Your task to perform on an android device: visit the assistant section in the google photos Image 0: 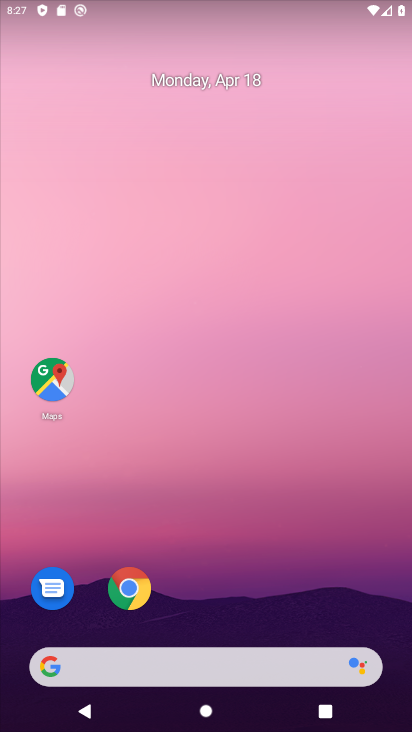
Step 0: drag from (209, 596) to (215, 65)
Your task to perform on an android device: visit the assistant section in the google photos Image 1: 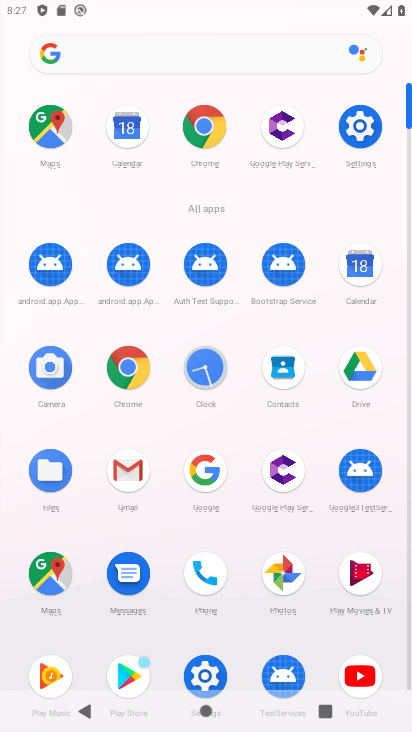
Step 1: click (290, 579)
Your task to perform on an android device: visit the assistant section in the google photos Image 2: 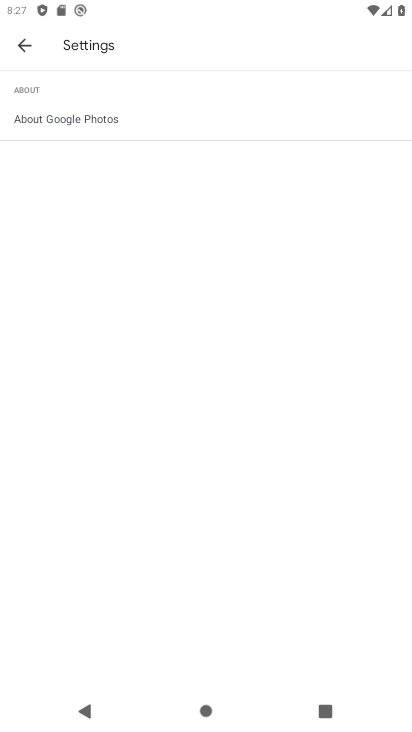
Step 2: click (23, 41)
Your task to perform on an android device: visit the assistant section in the google photos Image 3: 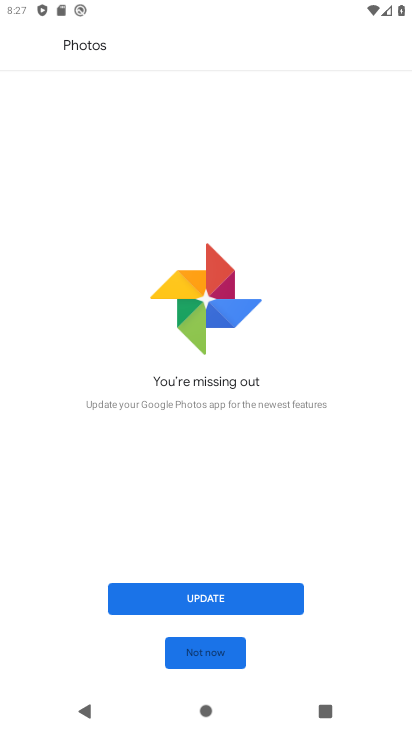
Step 3: click (211, 649)
Your task to perform on an android device: visit the assistant section in the google photos Image 4: 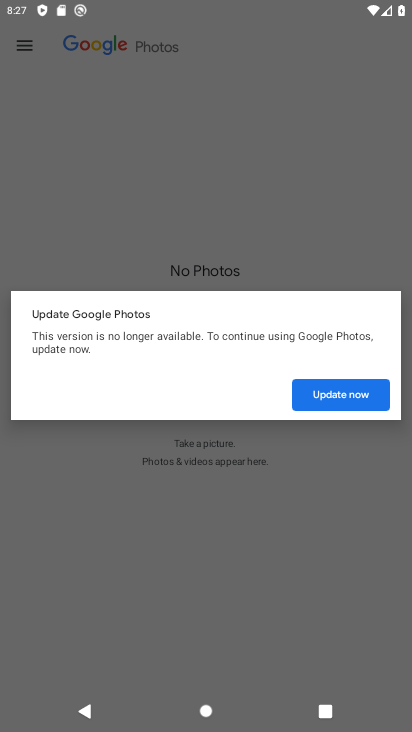
Step 4: click (352, 390)
Your task to perform on an android device: visit the assistant section in the google photos Image 5: 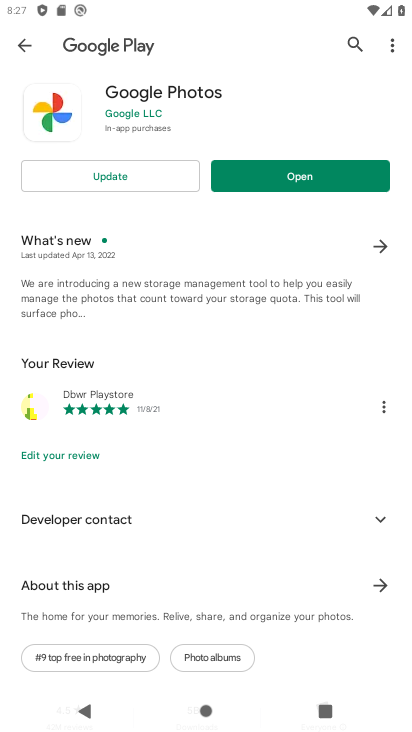
Step 5: click (124, 174)
Your task to perform on an android device: visit the assistant section in the google photos Image 6: 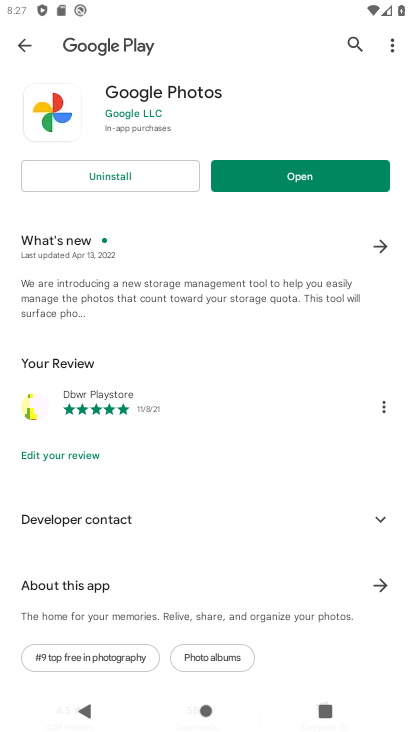
Step 6: click (294, 172)
Your task to perform on an android device: visit the assistant section in the google photos Image 7: 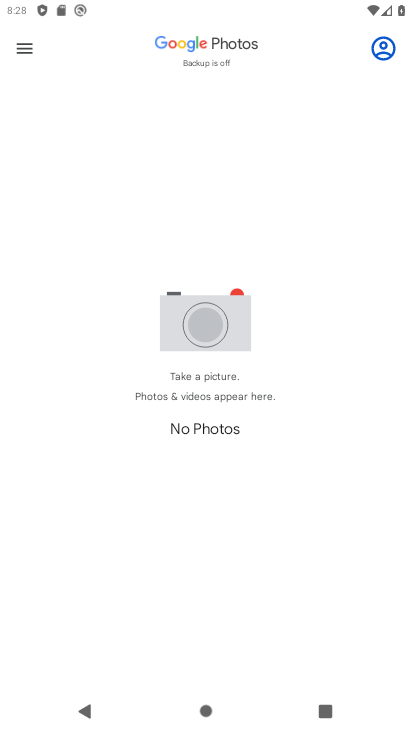
Step 7: drag from (175, 592) to (186, 184)
Your task to perform on an android device: visit the assistant section in the google photos Image 8: 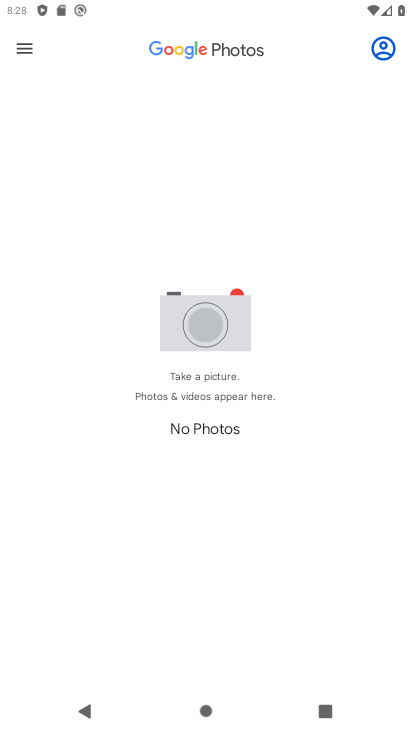
Step 8: click (18, 49)
Your task to perform on an android device: visit the assistant section in the google photos Image 9: 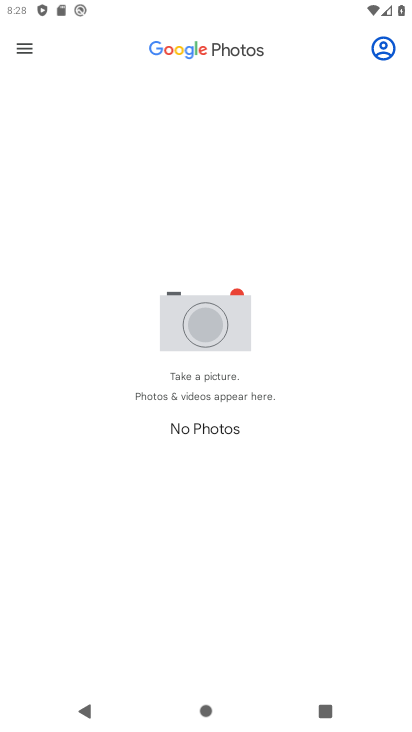
Step 9: click (26, 54)
Your task to perform on an android device: visit the assistant section in the google photos Image 10: 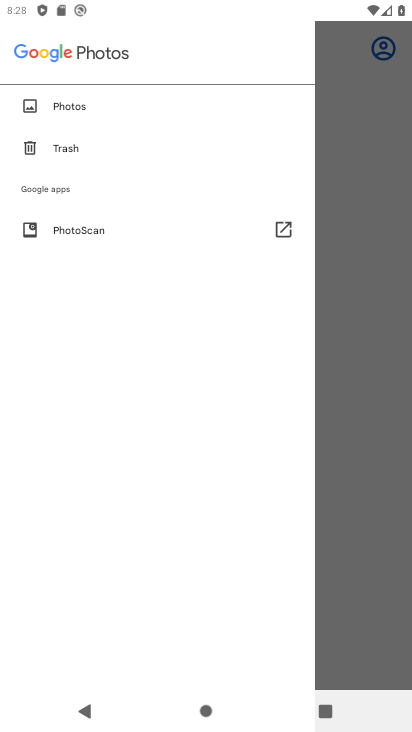
Step 10: drag from (158, 153) to (166, 400)
Your task to perform on an android device: visit the assistant section in the google photos Image 11: 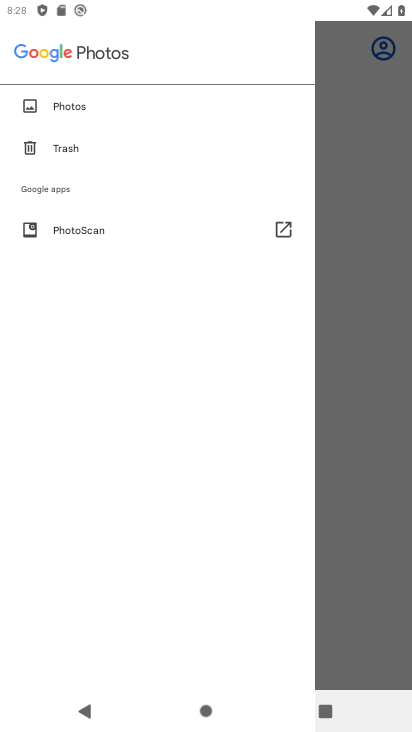
Step 11: click (374, 274)
Your task to perform on an android device: visit the assistant section in the google photos Image 12: 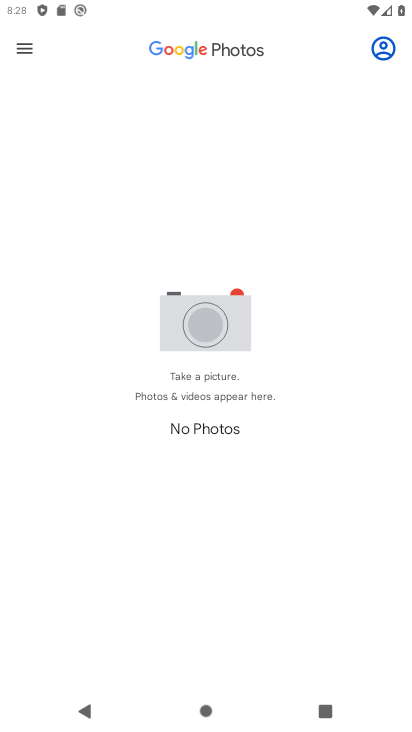
Step 12: task complete